Your task to perform on an android device: Go to Reddit.com Image 0: 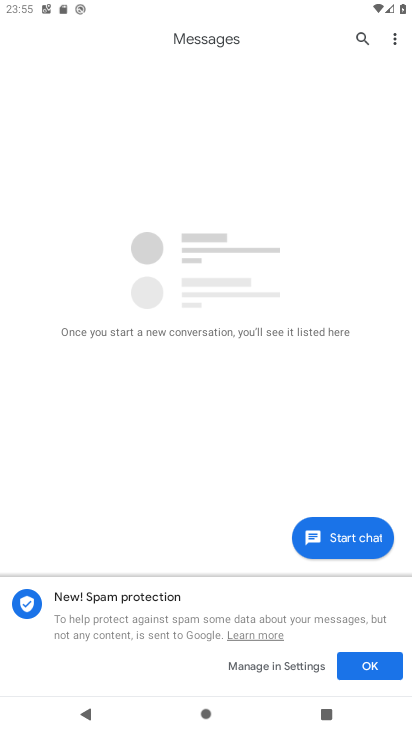
Step 0: click (319, 464)
Your task to perform on an android device: Go to Reddit.com Image 1: 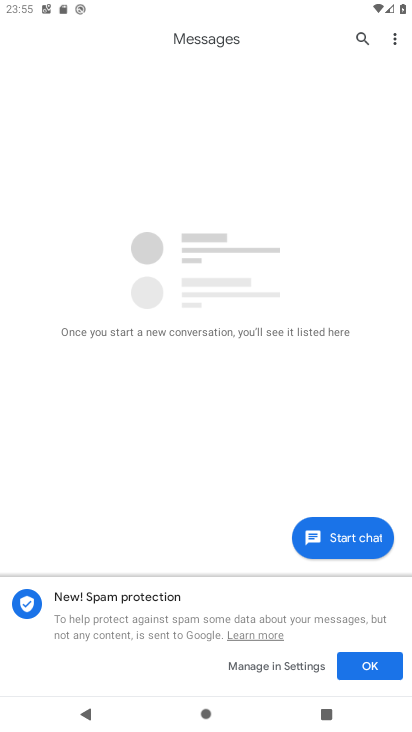
Step 1: press home button
Your task to perform on an android device: Go to Reddit.com Image 2: 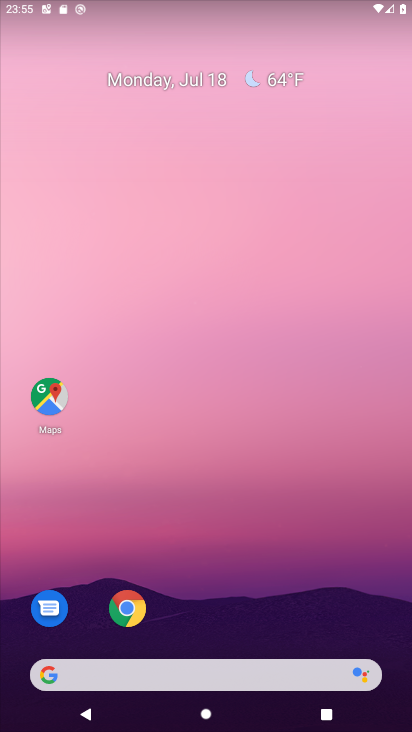
Step 2: drag from (150, 627) to (242, 151)
Your task to perform on an android device: Go to Reddit.com Image 3: 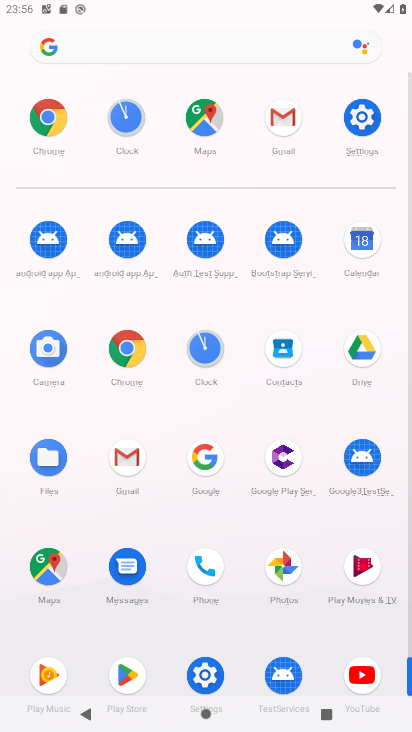
Step 3: click (133, 372)
Your task to perform on an android device: Go to Reddit.com Image 4: 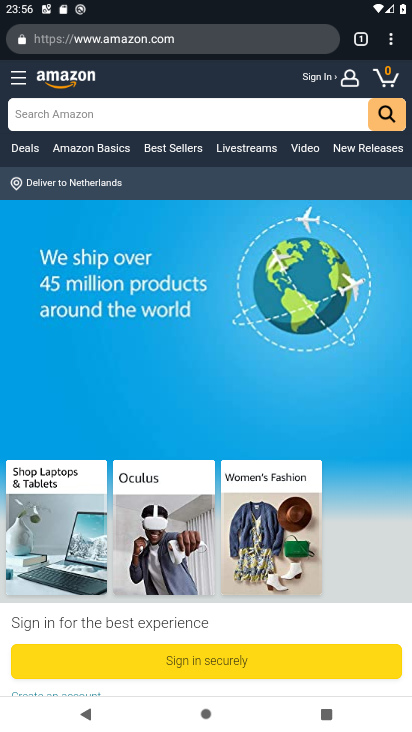
Step 4: click (370, 40)
Your task to perform on an android device: Go to Reddit.com Image 5: 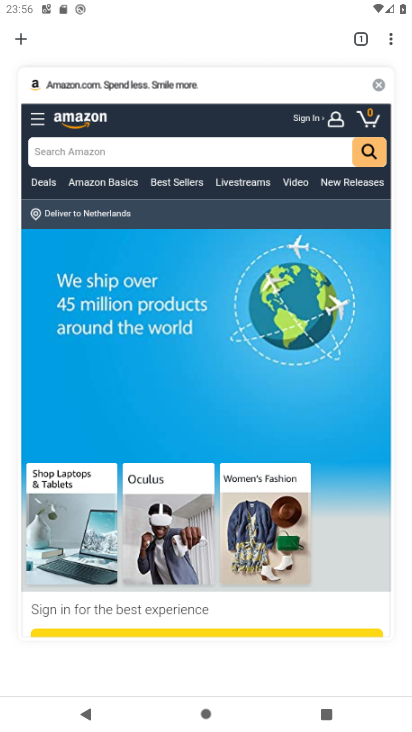
Step 5: click (14, 46)
Your task to perform on an android device: Go to Reddit.com Image 6: 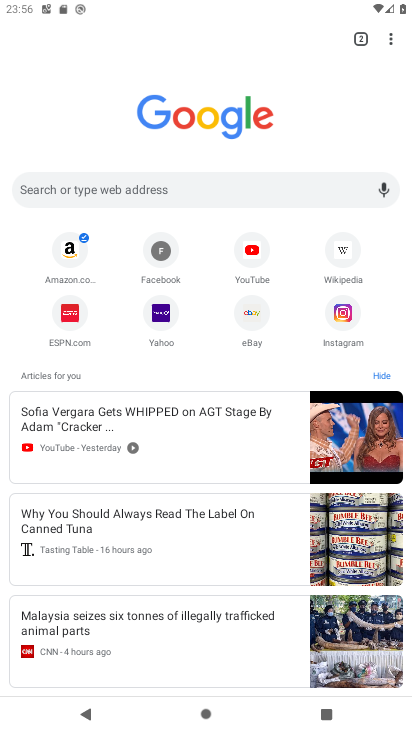
Step 6: click (148, 189)
Your task to perform on an android device: Go to Reddit.com Image 7: 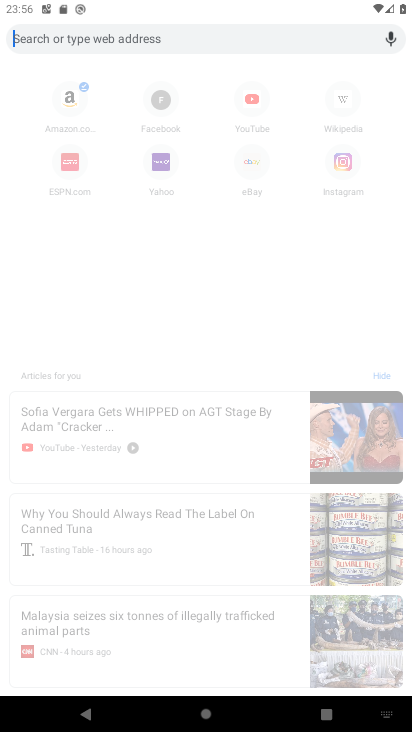
Step 7: type "Reddit.com"
Your task to perform on an android device: Go to Reddit.com Image 8: 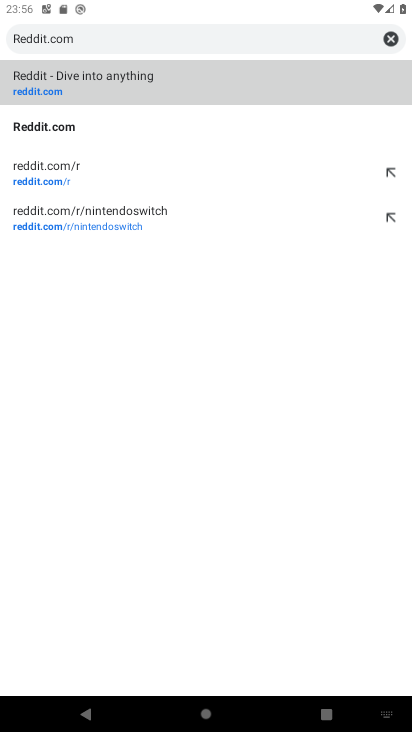
Step 8: click (156, 85)
Your task to perform on an android device: Go to Reddit.com Image 9: 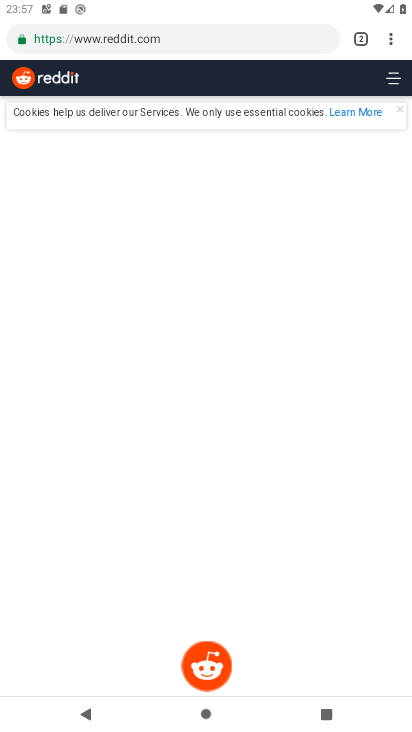
Step 9: task complete